Your task to perform on an android device: Add apple airpods to the cart on ebay Image 0: 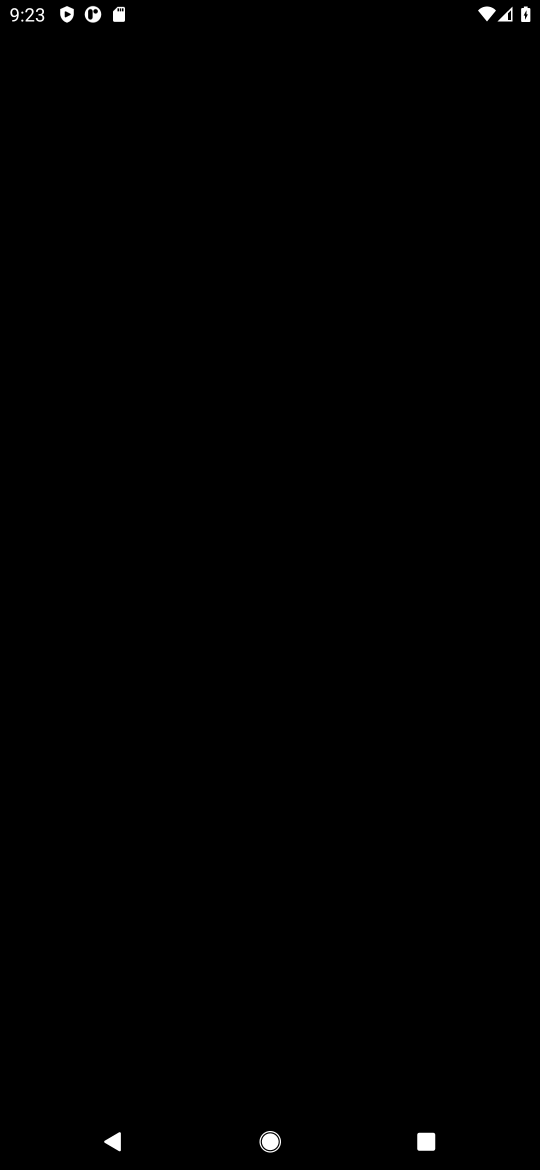
Step 0: press home button
Your task to perform on an android device: Add apple airpods to the cart on ebay Image 1: 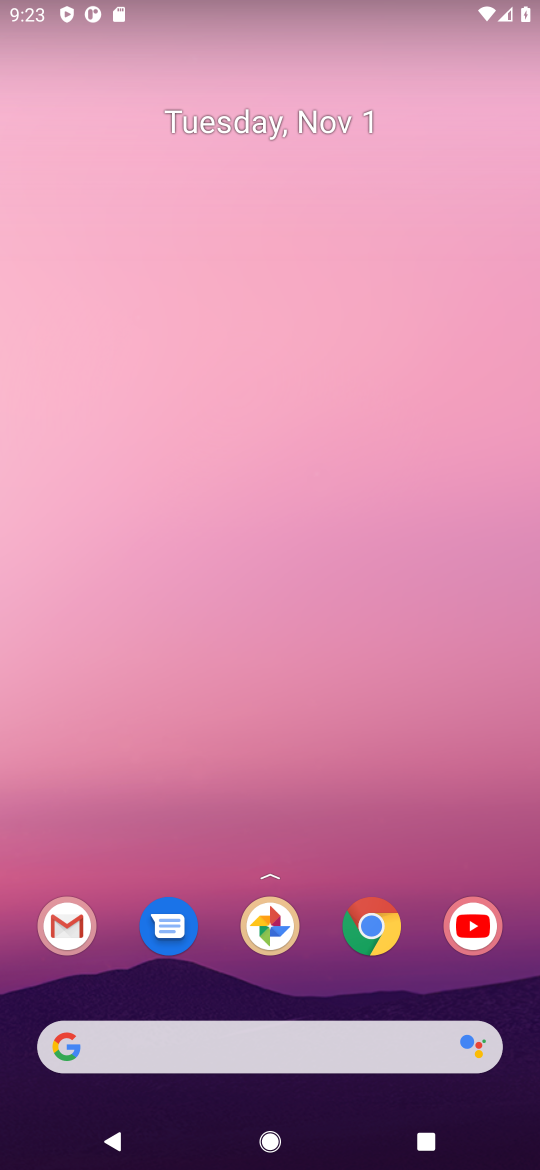
Step 1: click (382, 927)
Your task to perform on an android device: Add apple airpods to the cart on ebay Image 2: 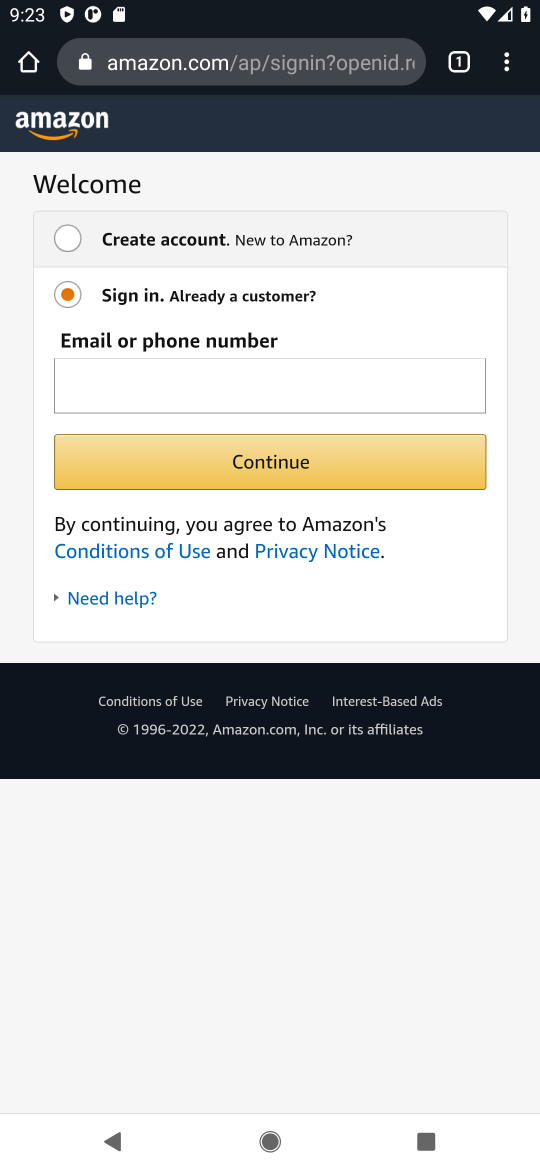
Step 2: click (175, 54)
Your task to perform on an android device: Add apple airpods to the cart on ebay Image 3: 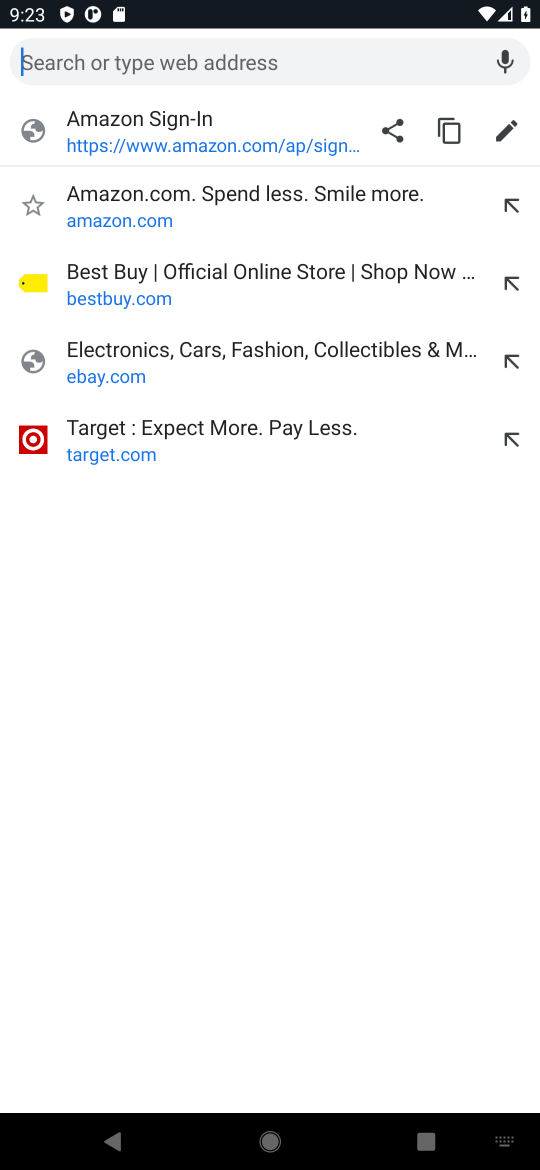
Step 3: type "ebay"
Your task to perform on an android device: Add apple airpods to the cart on ebay Image 4: 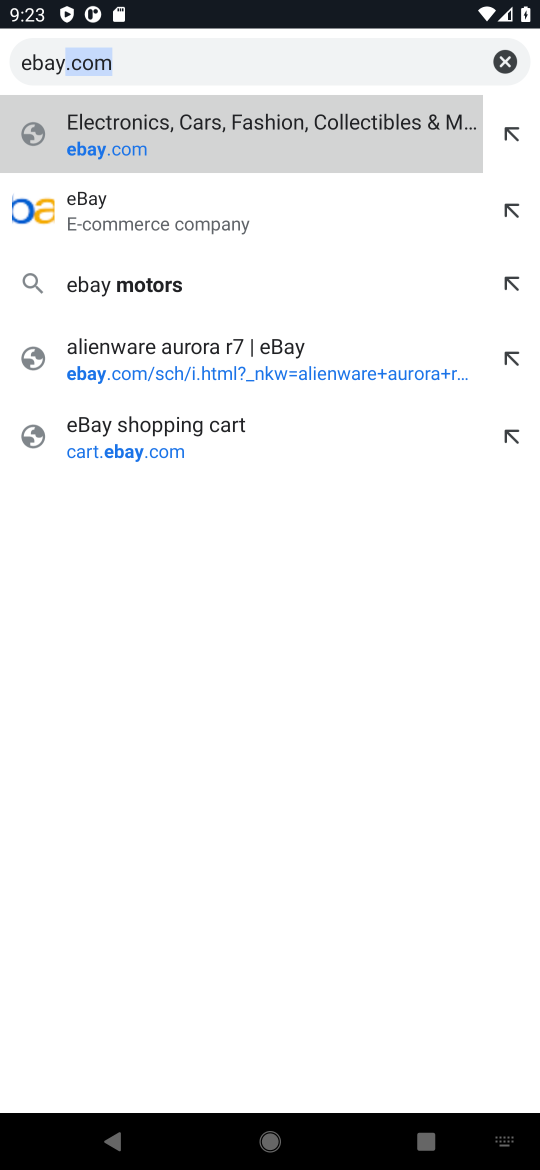
Step 4: type ""
Your task to perform on an android device: Add apple airpods to the cart on ebay Image 5: 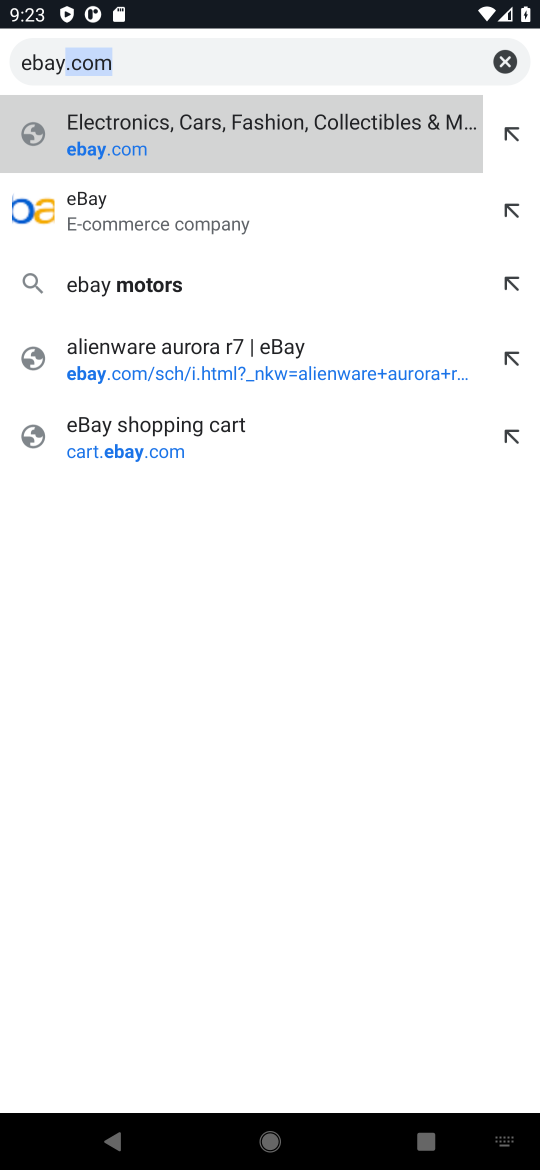
Step 5: click (124, 211)
Your task to perform on an android device: Add apple airpods to the cart on ebay Image 6: 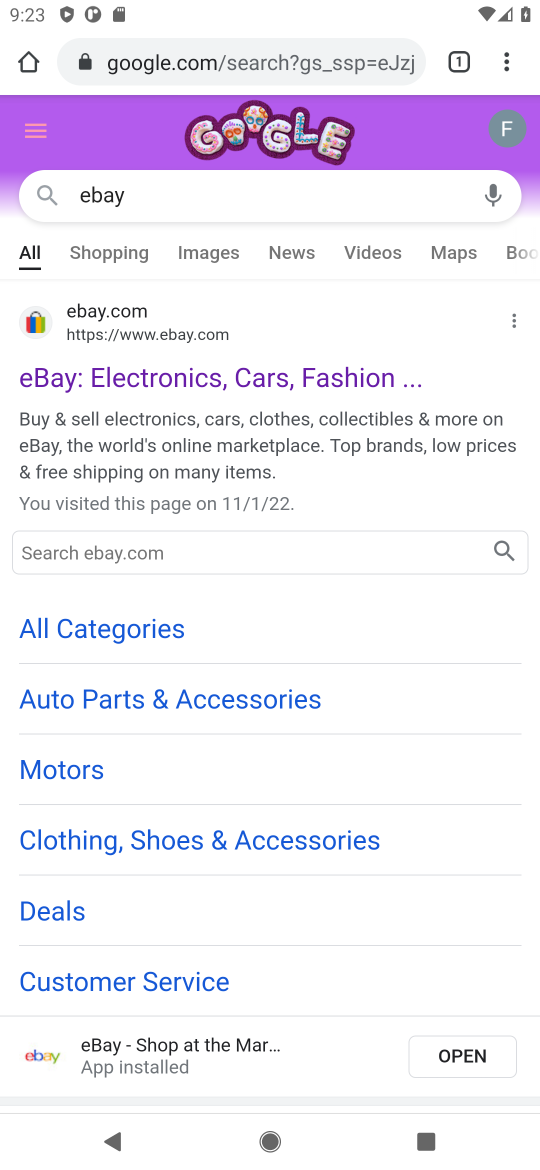
Step 6: click (157, 381)
Your task to perform on an android device: Add apple airpods to the cart on ebay Image 7: 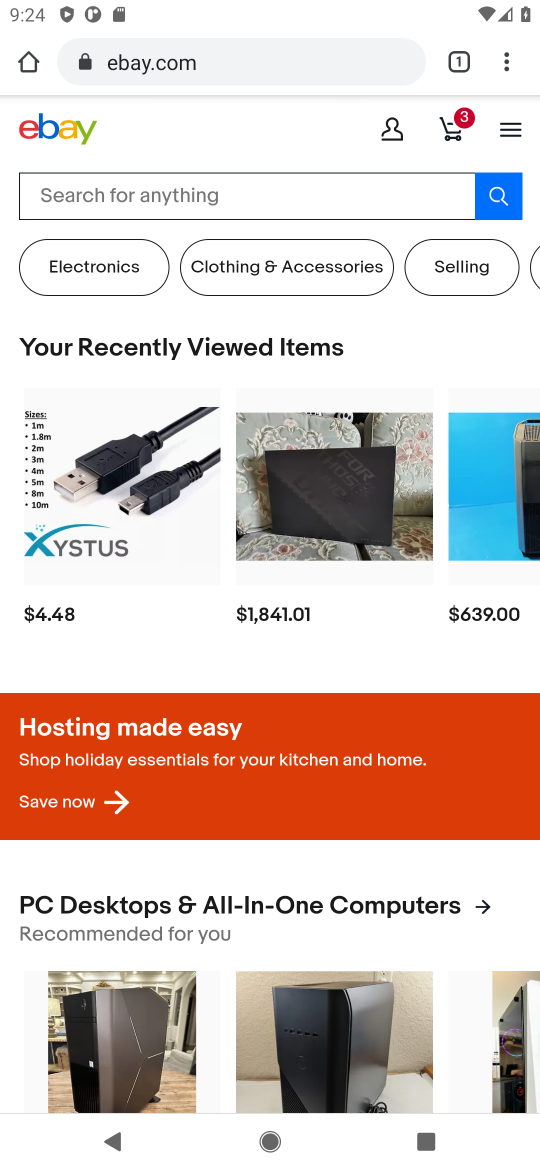
Step 7: click (77, 190)
Your task to perform on an android device: Add apple airpods to the cart on ebay Image 8: 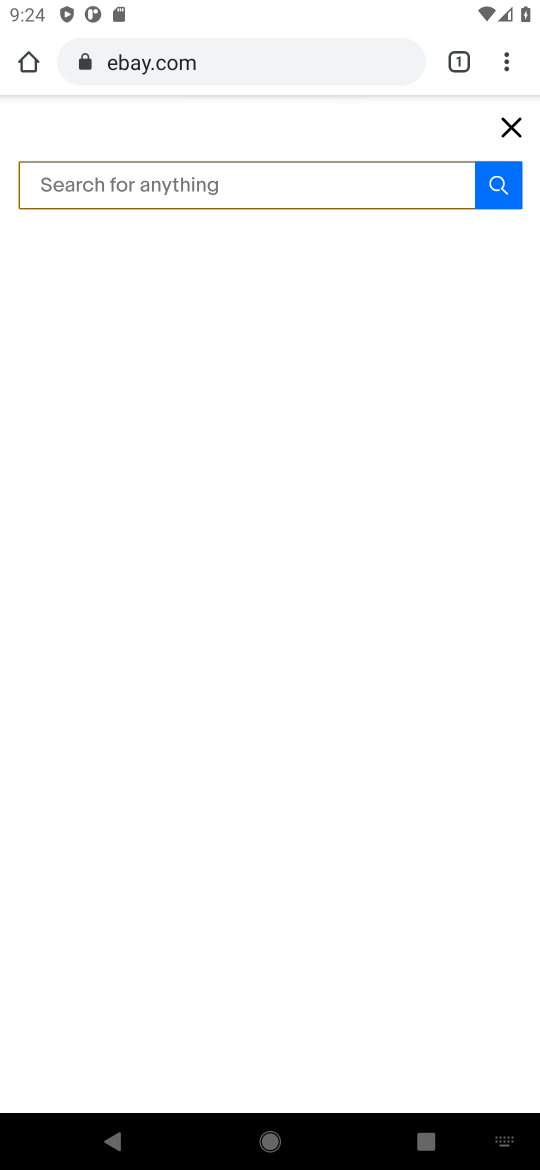
Step 8: type "apple airpods"
Your task to perform on an android device: Add apple airpods to the cart on ebay Image 9: 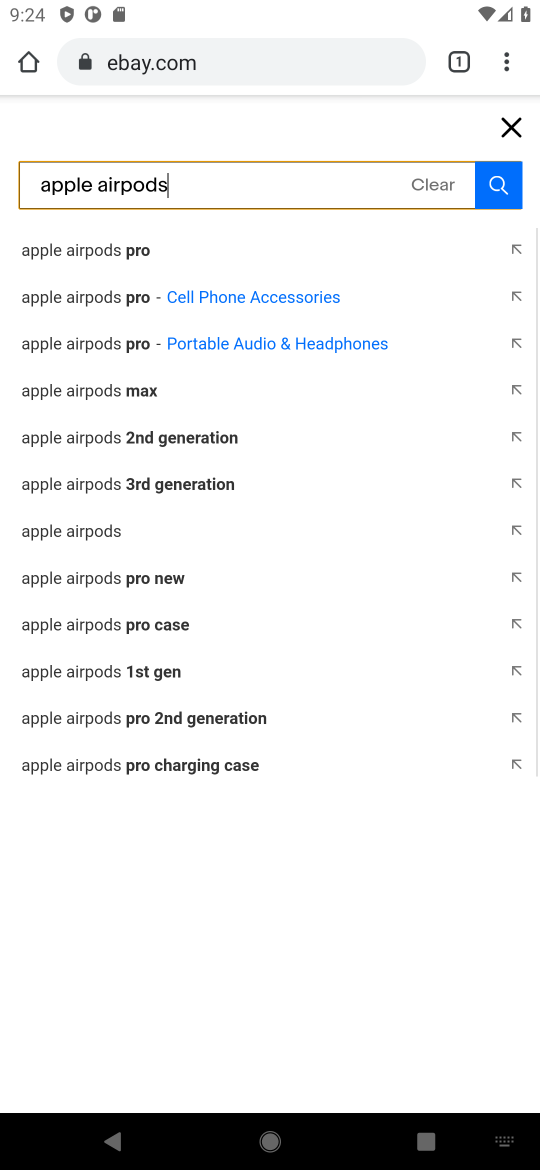
Step 9: type ""
Your task to perform on an android device: Add apple airpods to the cart on ebay Image 10: 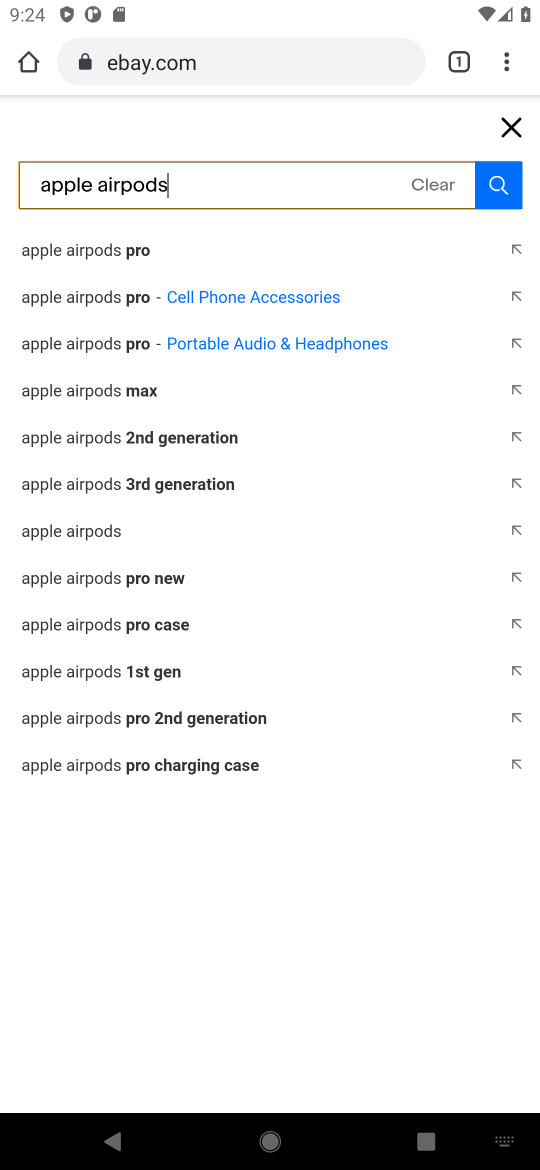
Step 10: click (99, 533)
Your task to perform on an android device: Add apple airpods to the cart on ebay Image 11: 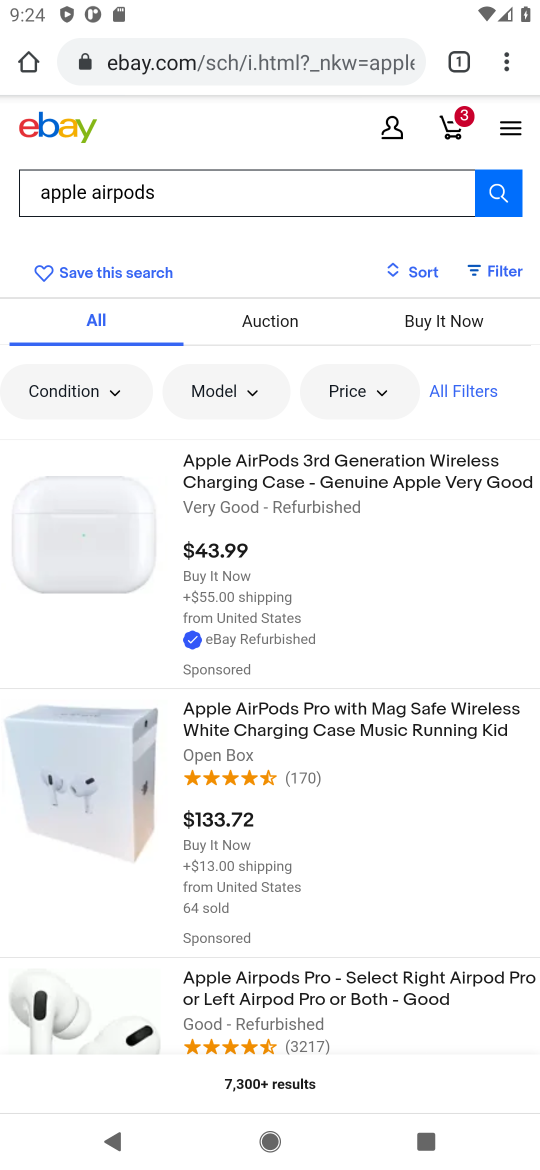
Step 11: click (349, 733)
Your task to perform on an android device: Add apple airpods to the cart on ebay Image 12: 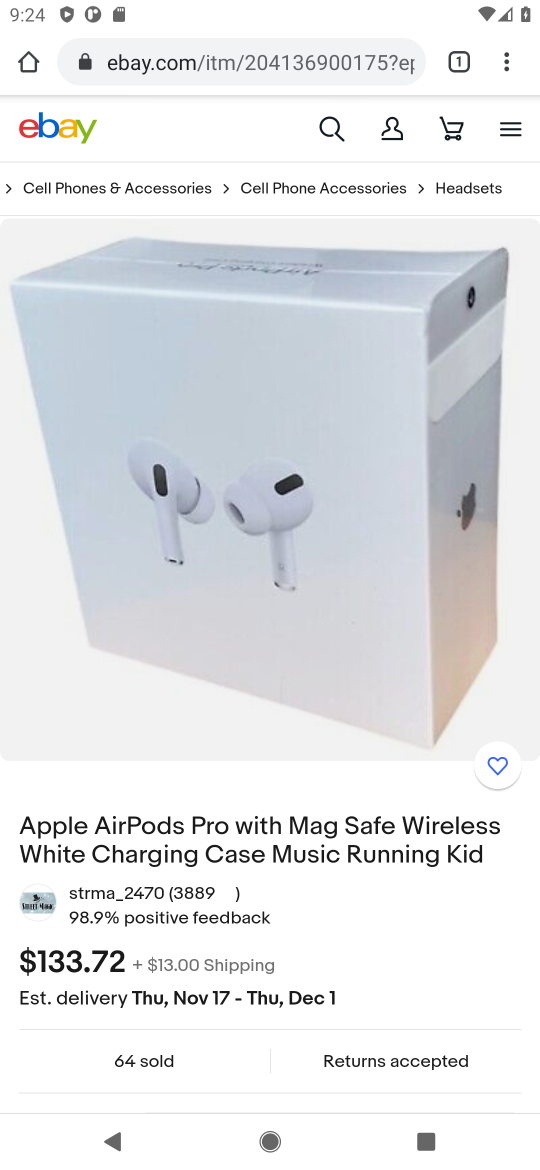
Step 12: drag from (262, 895) to (368, 321)
Your task to perform on an android device: Add apple airpods to the cart on ebay Image 13: 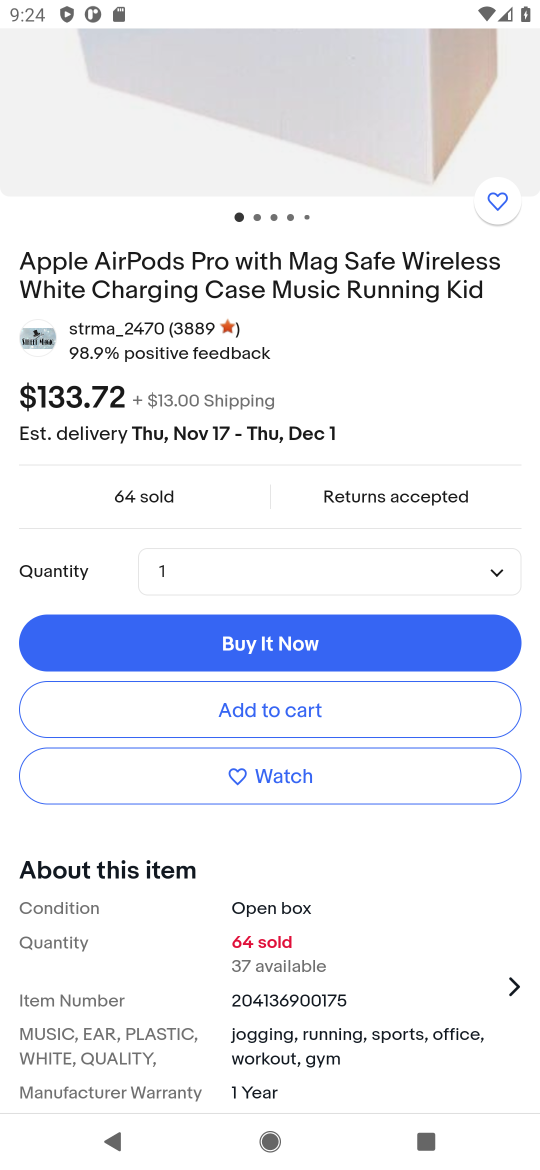
Step 13: click (263, 708)
Your task to perform on an android device: Add apple airpods to the cart on ebay Image 14: 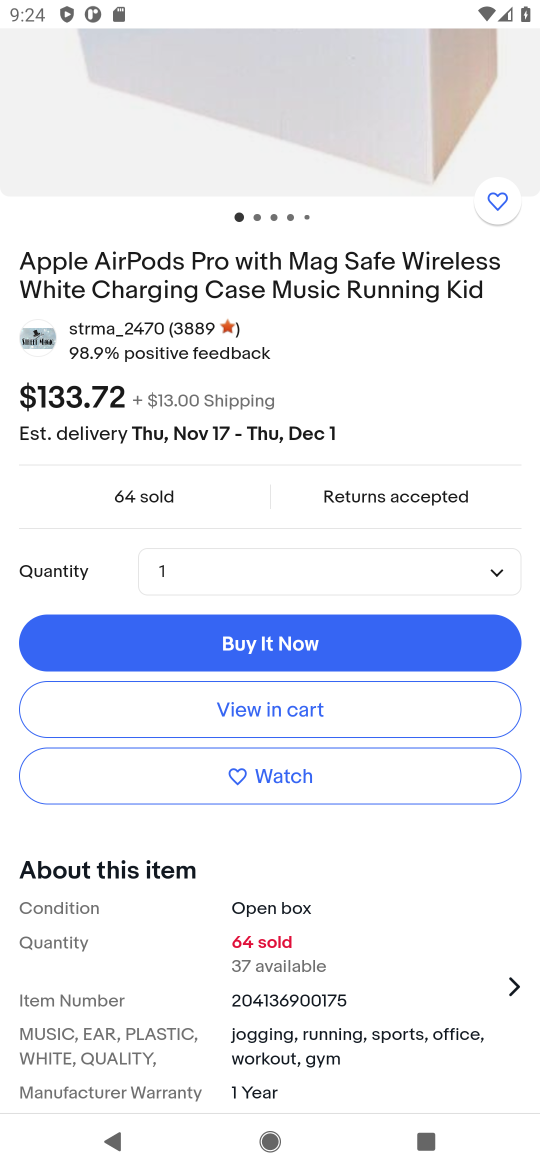
Step 14: click (249, 697)
Your task to perform on an android device: Add apple airpods to the cart on ebay Image 15: 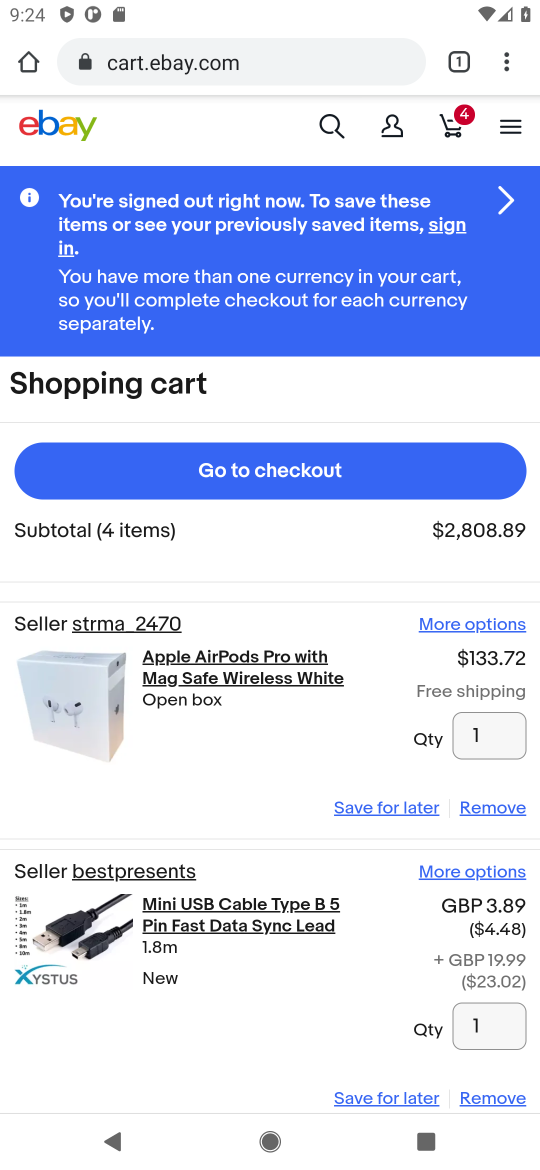
Step 15: drag from (232, 942) to (175, 878)
Your task to perform on an android device: Add apple airpods to the cart on ebay Image 16: 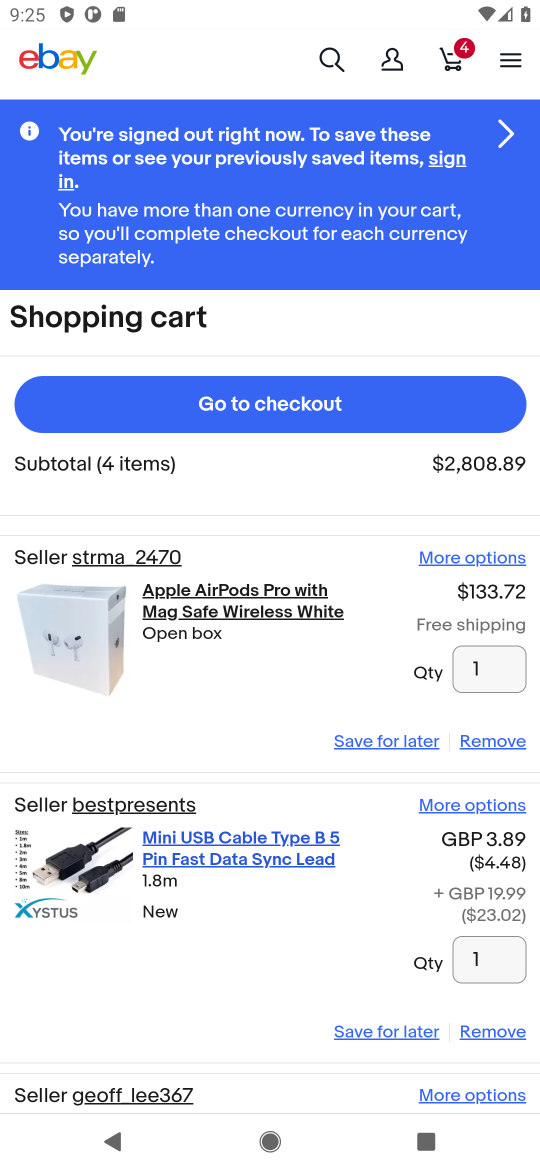
Step 16: click (186, 631)
Your task to perform on an android device: Add apple airpods to the cart on ebay Image 17: 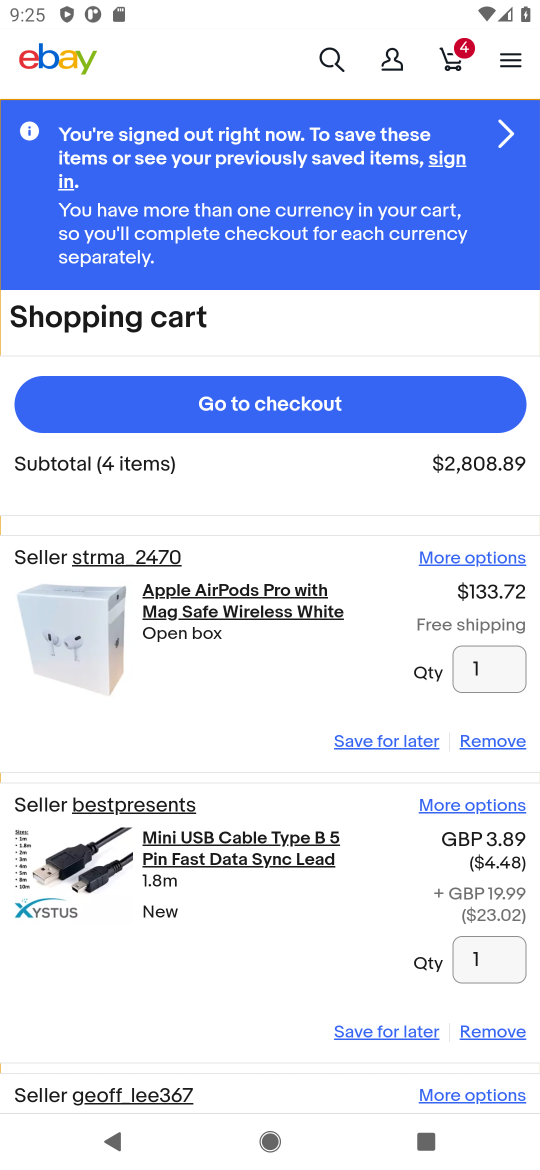
Step 17: task complete